Your task to perform on an android device: Open accessibility settings Image 0: 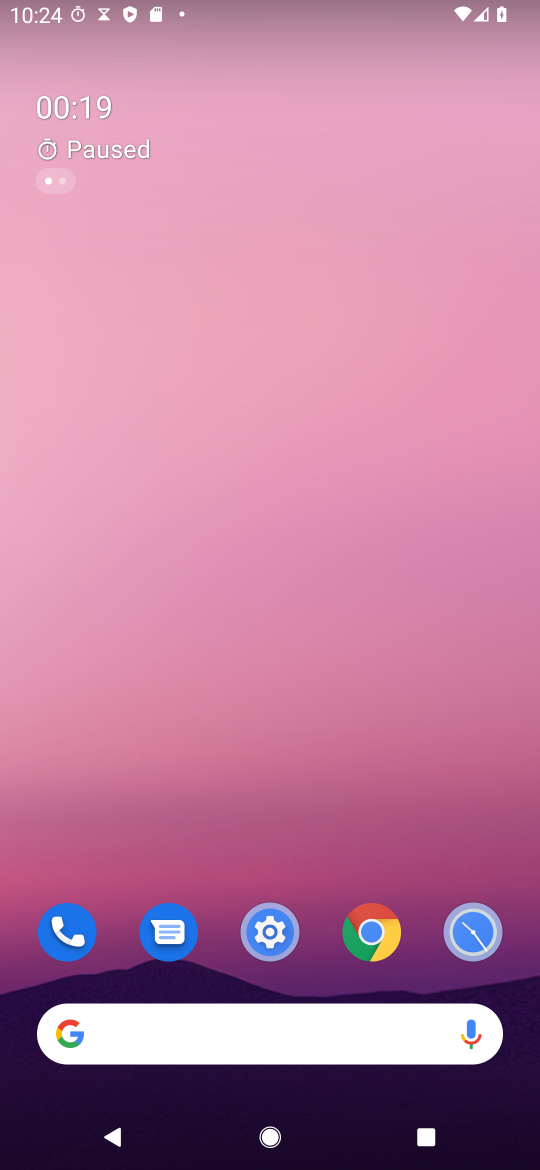
Step 0: drag from (216, 1030) to (239, 130)
Your task to perform on an android device: Open accessibility settings Image 1: 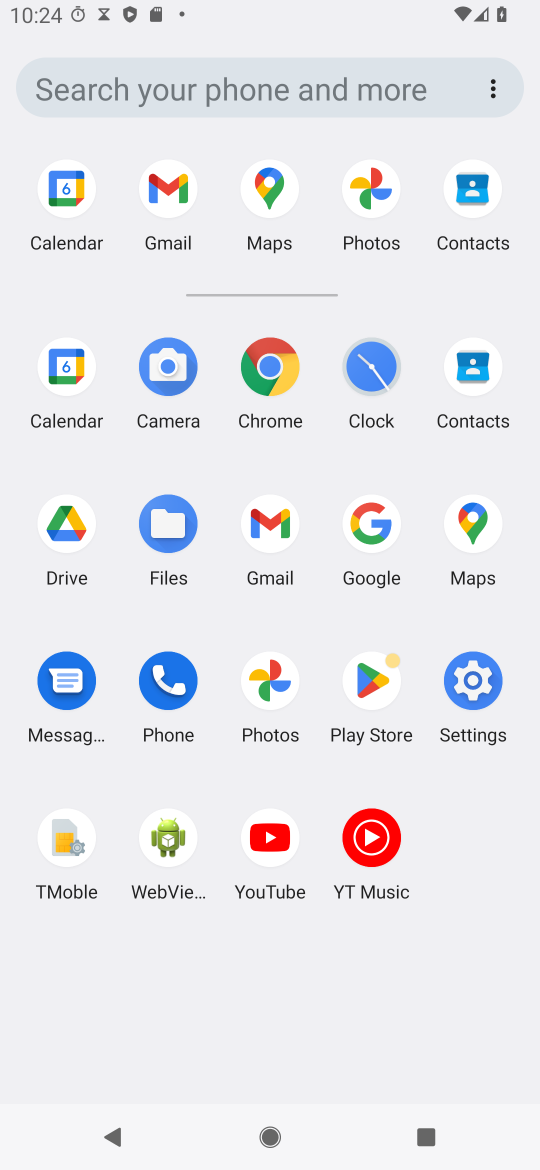
Step 1: click (473, 688)
Your task to perform on an android device: Open accessibility settings Image 2: 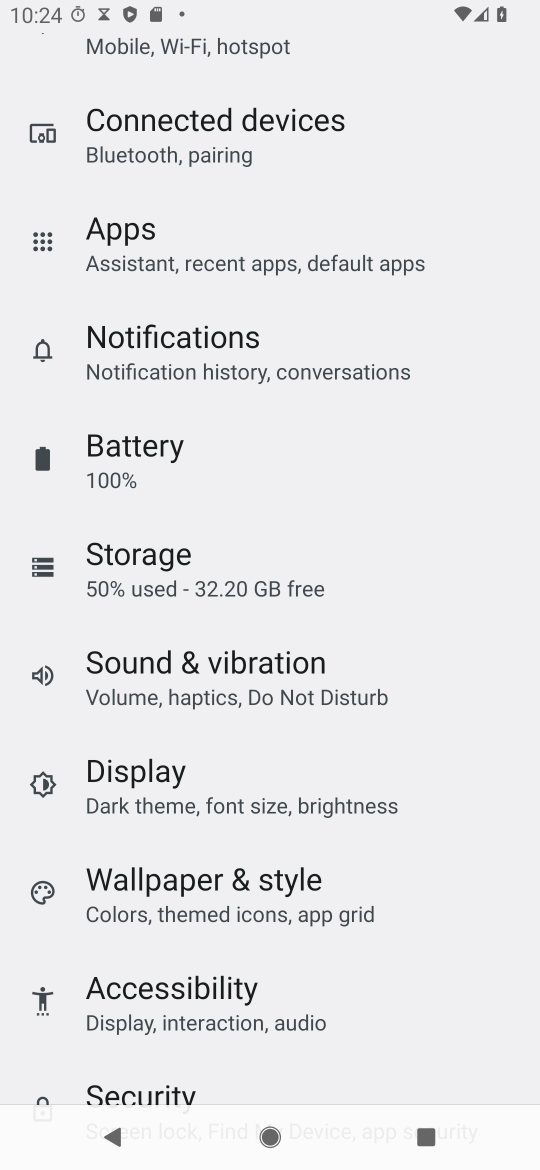
Step 2: click (194, 997)
Your task to perform on an android device: Open accessibility settings Image 3: 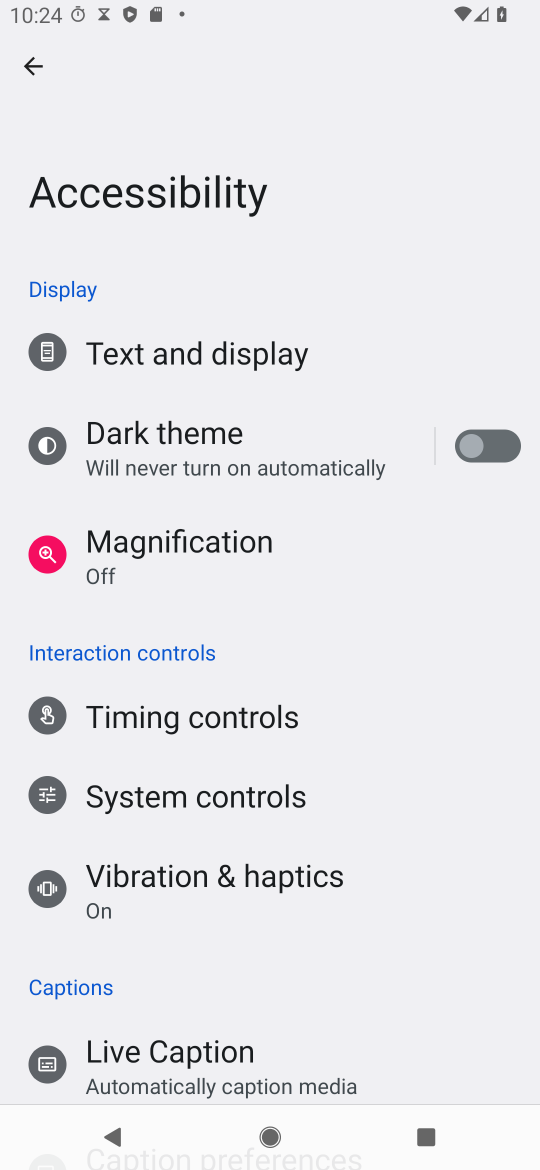
Step 3: task complete